Your task to perform on an android device: Open my contact list Image 0: 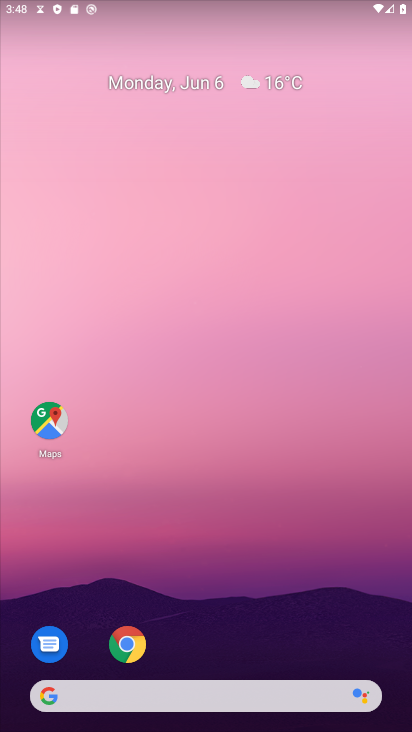
Step 0: drag from (126, 717) to (86, 5)
Your task to perform on an android device: Open my contact list Image 1: 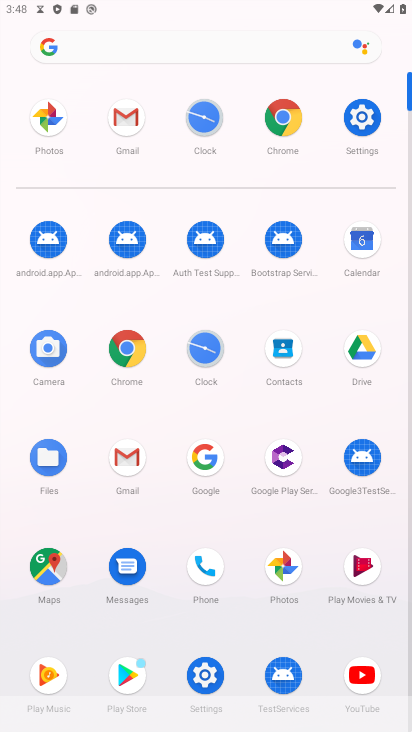
Step 1: click (281, 346)
Your task to perform on an android device: Open my contact list Image 2: 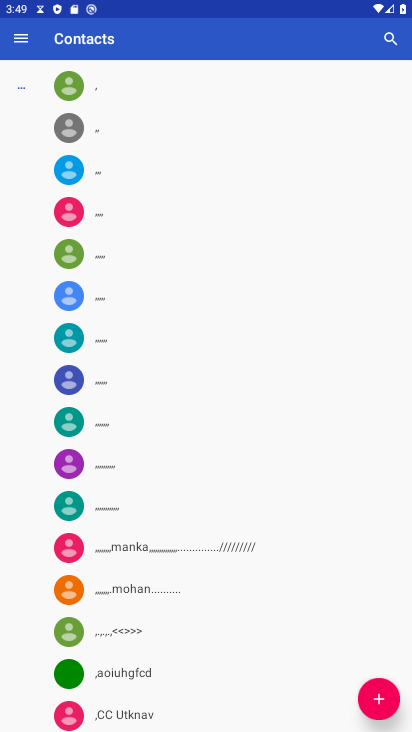
Step 2: task complete